Your task to perform on an android device: set the timer Image 0: 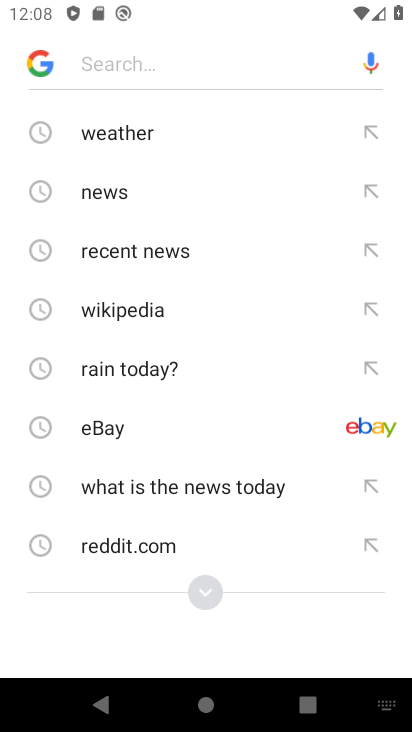
Step 0: press home button
Your task to perform on an android device: set the timer Image 1: 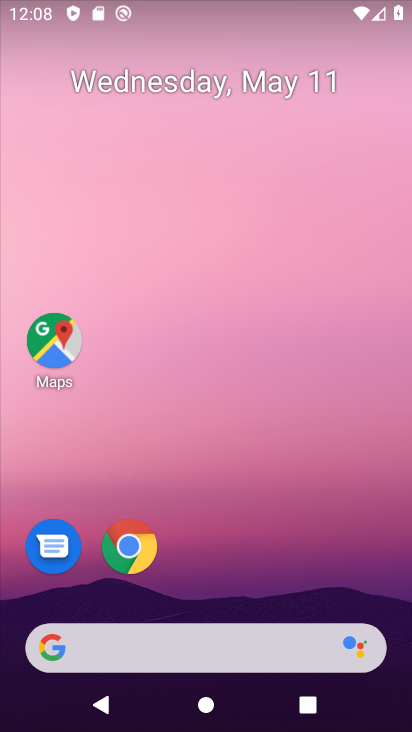
Step 1: drag from (191, 568) to (245, 124)
Your task to perform on an android device: set the timer Image 2: 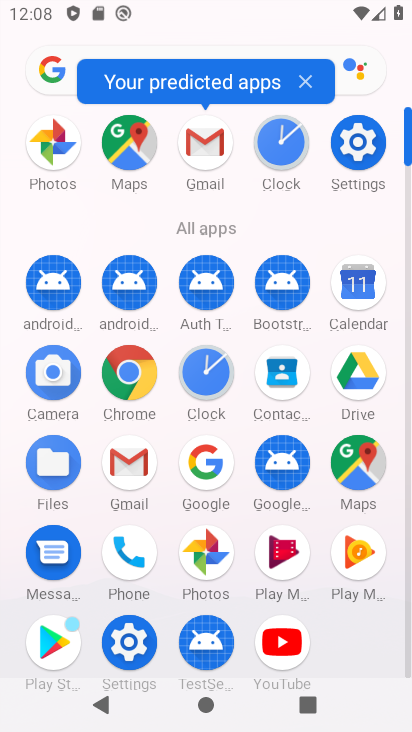
Step 2: click (291, 149)
Your task to perform on an android device: set the timer Image 3: 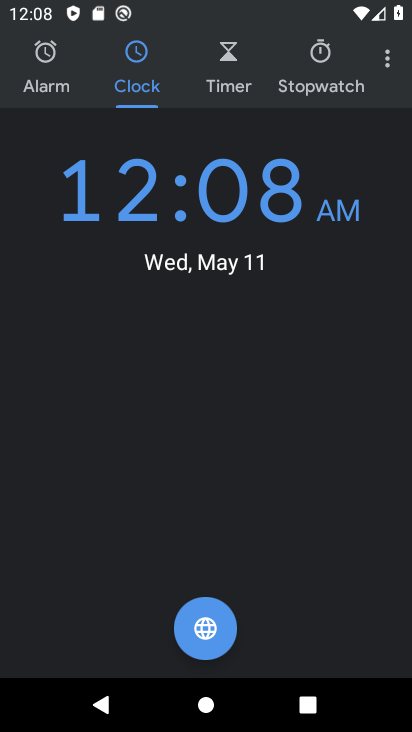
Step 3: click (225, 83)
Your task to perform on an android device: set the timer Image 4: 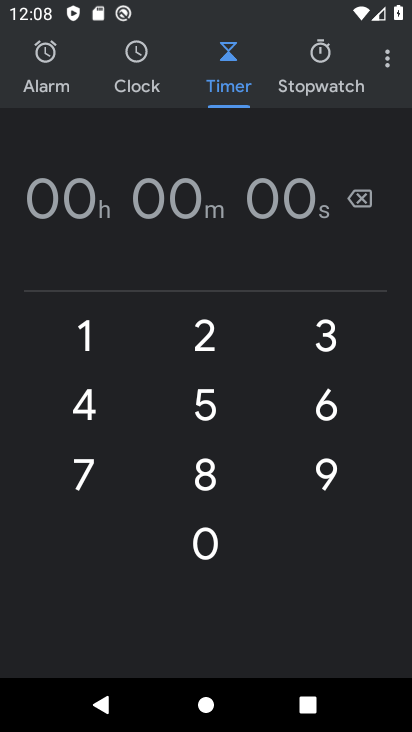
Step 4: click (215, 334)
Your task to perform on an android device: set the timer Image 5: 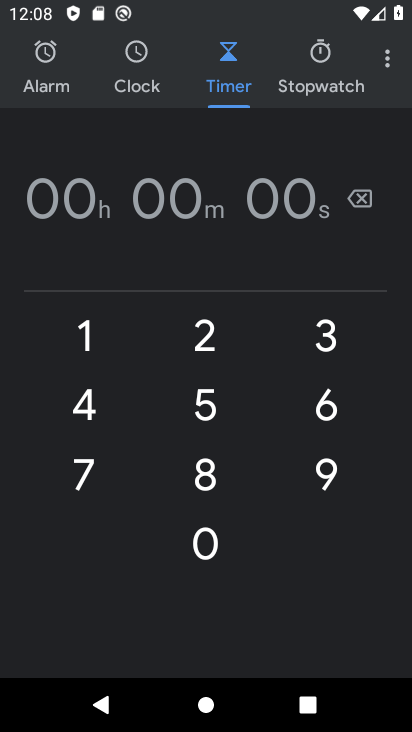
Step 5: click (215, 334)
Your task to perform on an android device: set the timer Image 6: 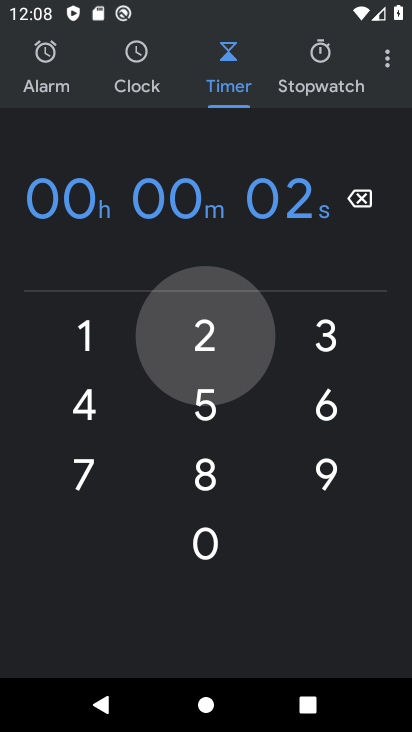
Step 6: click (215, 334)
Your task to perform on an android device: set the timer Image 7: 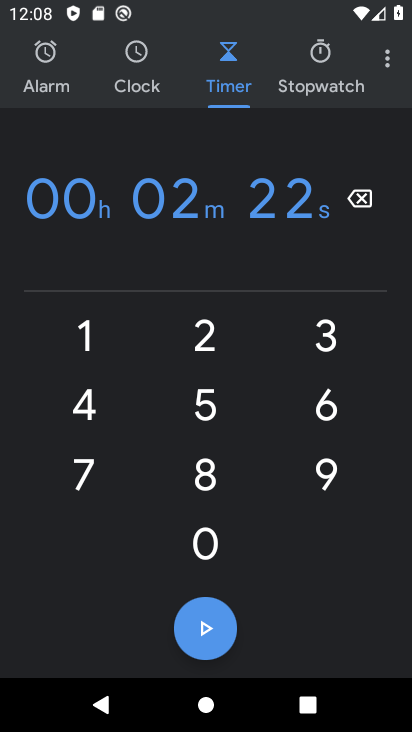
Step 7: click (194, 629)
Your task to perform on an android device: set the timer Image 8: 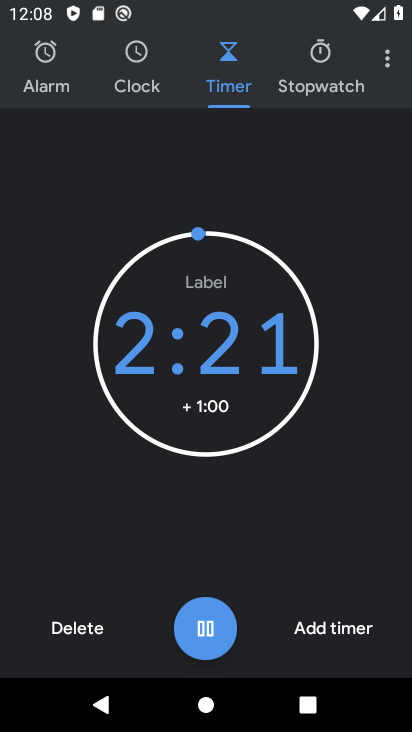
Step 8: task complete